Your task to perform on an android device: open wifi settings Image 0: 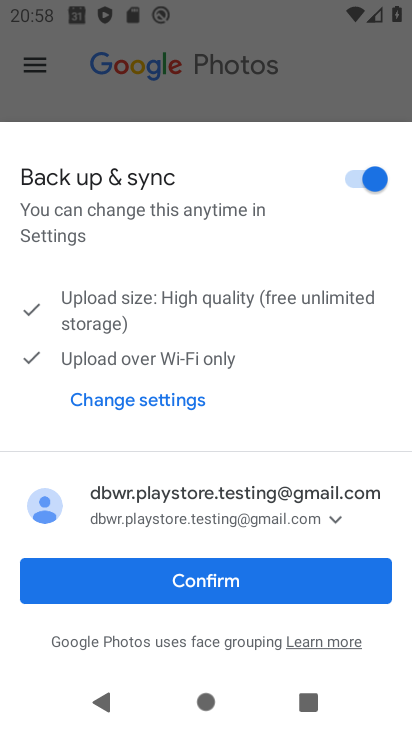
Step 0: press home button
Your task to perform on an android device: open wifi settings Image 1: 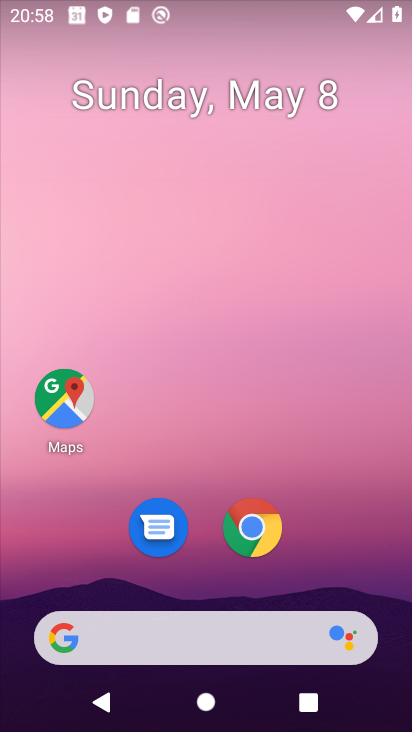
Step 1: drag from (222, 571) to (261, 3)
Your task to perform on an android device: open wifi settings Image 2: 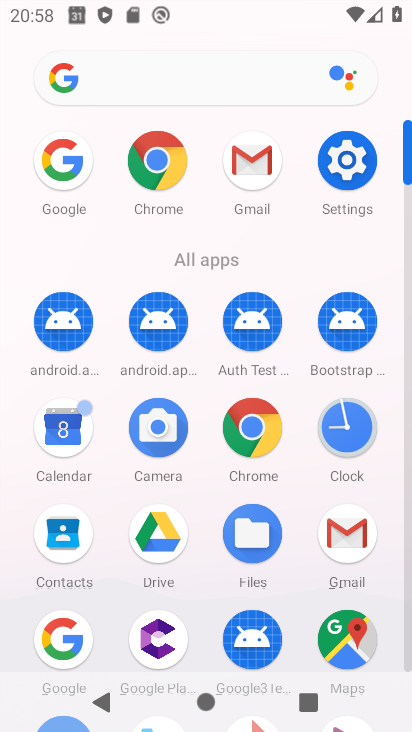
Step 2: click (346, 157)
Your task to perform on an android device: open wifi settings Image 3: 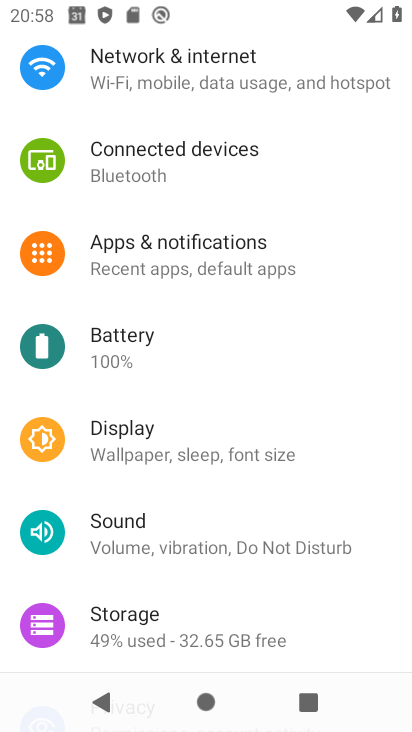
Step 3: click (116, 92)
Your task to perform on an android device: open wifi settings Image 4: 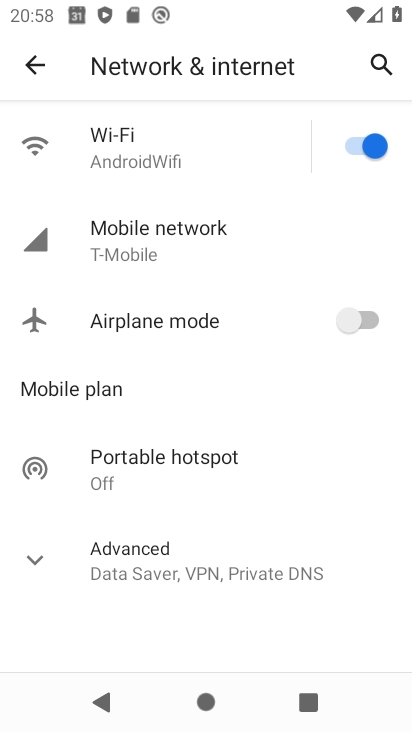
Step 4: click (159, 149)
Your task to perform on an android device: open wifi settings Image 5: 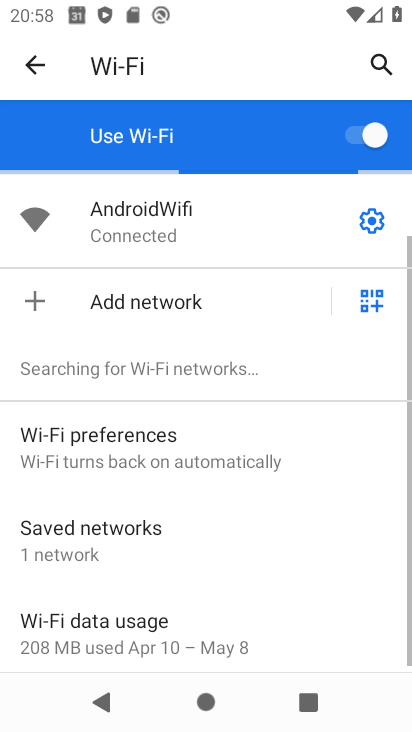
Step 5: click (157, 223)
Your task to perform on an android device: open wifi settings Image 6: 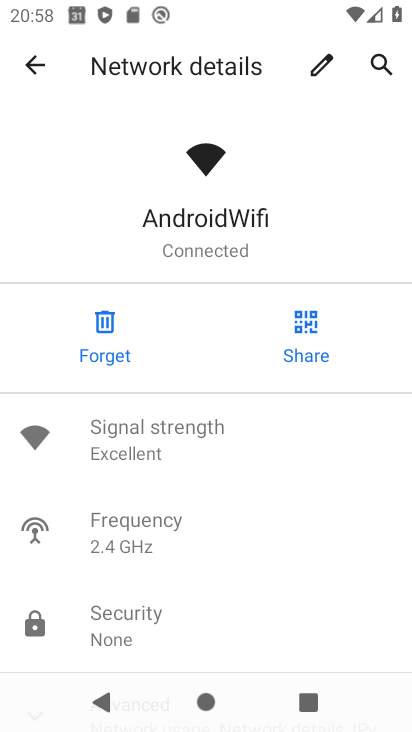
Step 6: task complete